Your task to perform on an android device: delete the emails in spam in the gmail app Image 0: 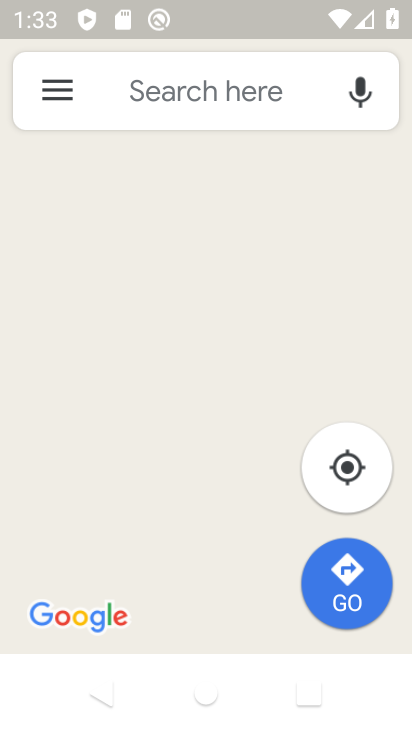
Step 0: press home button
Your task to perform on an android device: delete the emails in spam in the gmail app Image 1: 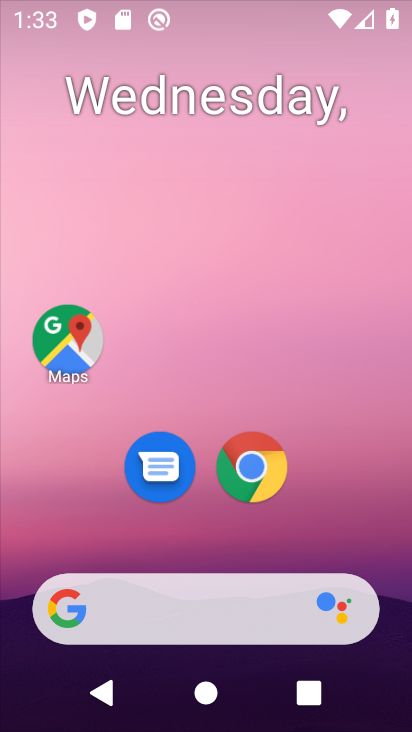
Step 1: drag from (315, 542) to (143, 4)
Your task to perform on an android device: delete the emails in spam in the gmail app Image 2: 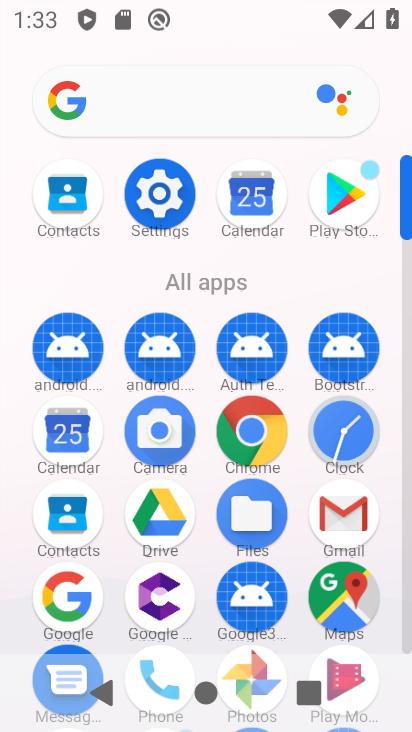
Step 2: click (350, 493)
Your task to perform on an android device: delete the emails in spam in the gmail app Image 3: 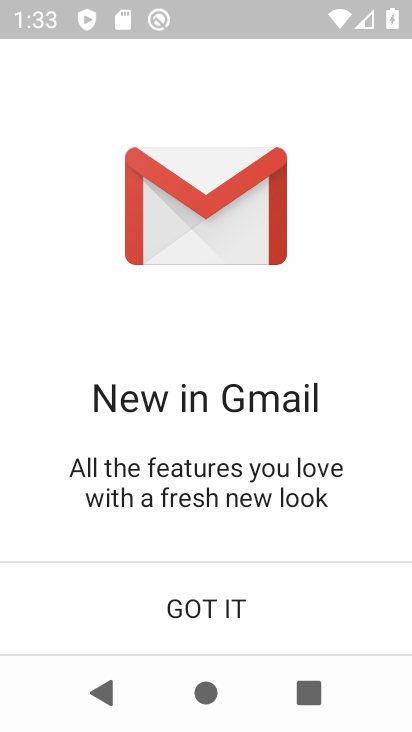
Step 3: click (233, 604)
Your task to perform on an android device: delete the emails in spam in the gmail app Image 4: 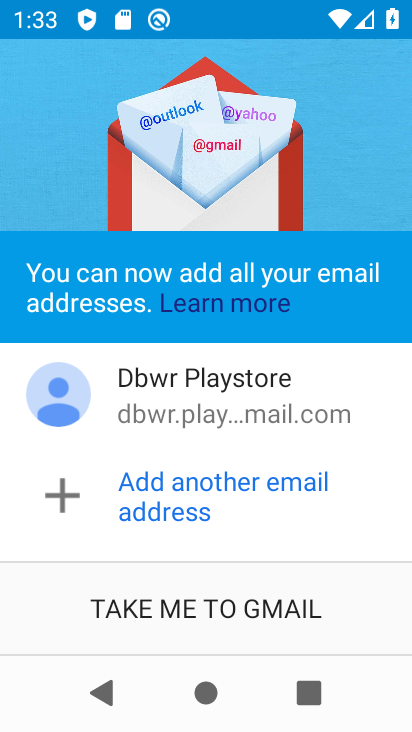
Step 4: click (247, 598)
Your task to perform on an android device: delete the emails in spam in the gmail app Image 5: 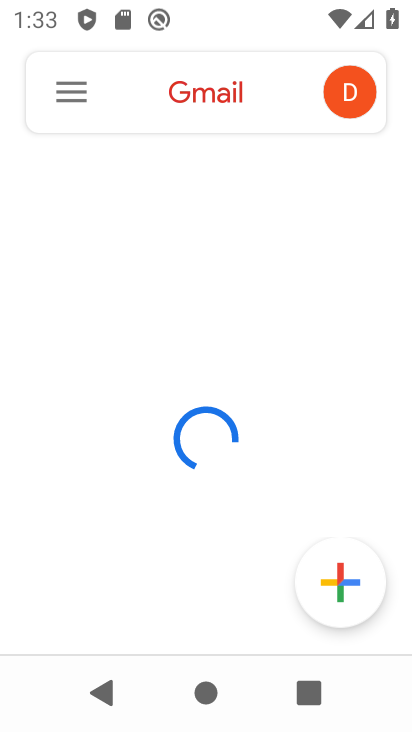
Step 5: click (64, 83)
Your task to perform on an android device: delete the emails in spam in the gmail app Image 6: 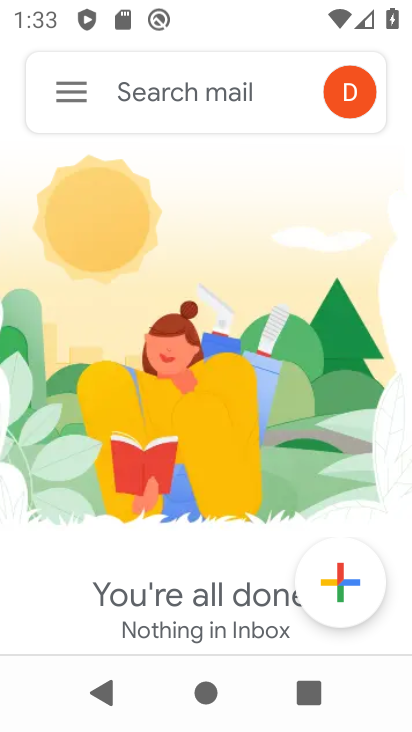
Step 6: click (77, 102)
Your task to perform on an android device: delete the emails in spam in the gmail app Image 7: 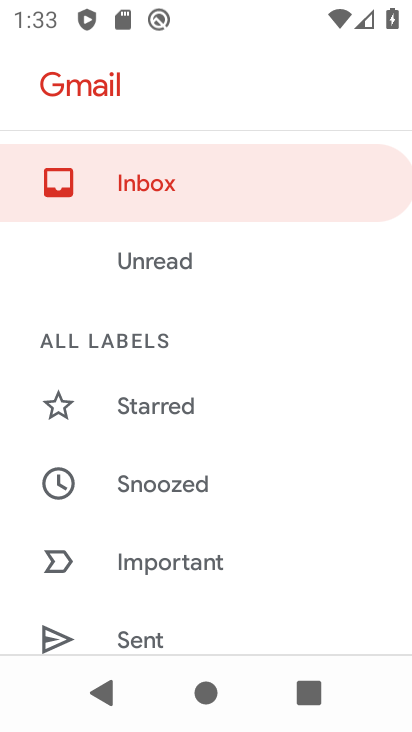
Step 7: drag from (279, 557) to (231, 94)
Your task to perform on an android device: delete the emails in spam in the gmail app Image 8: 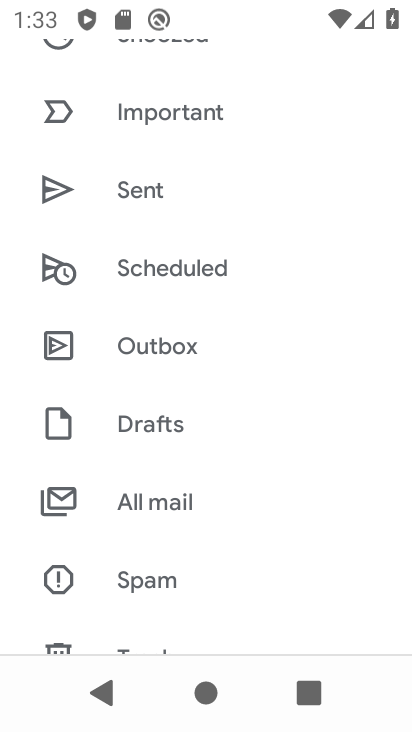
Step 8: click (205, 578)
Your task to perform on an android device: delete the emails in spam in the gmail app Image 9: 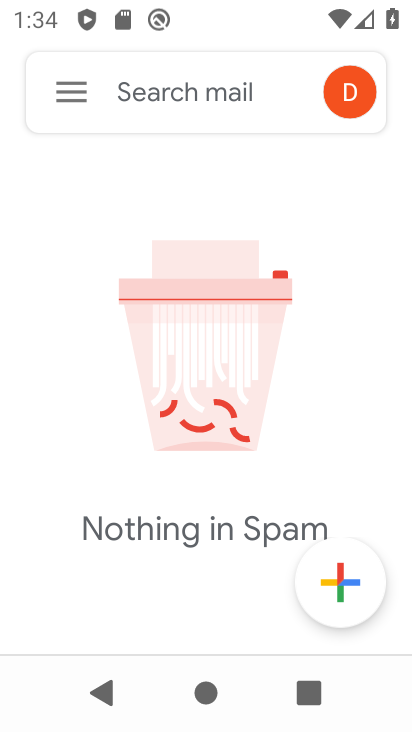
Step 9: task complete